Your task to perform on an android device: toggle data saver in the chrome app Image 0: 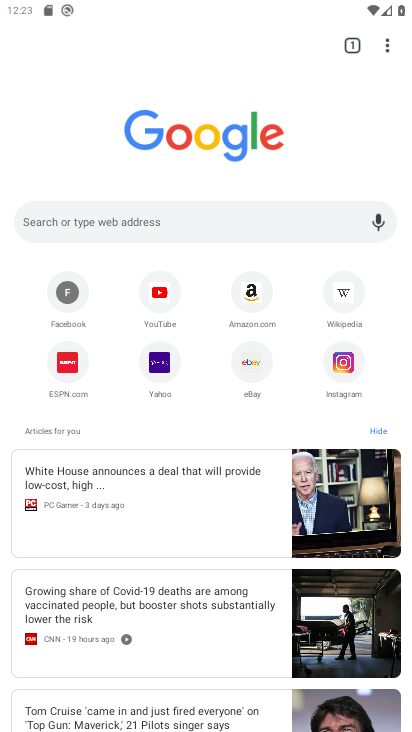
Step 0: press home button
Your task to perform on an android device: toggle data saver in the chrome app Image 1: 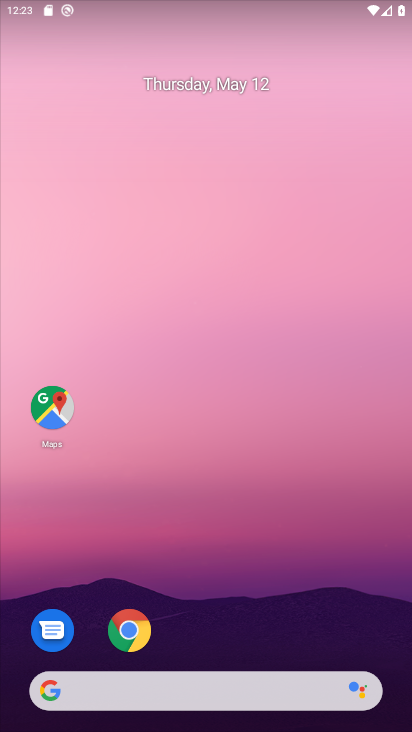
Step 1: click (146, 635)
Your task to perform on an android device: toggle data saver in the chrome app Image 2: 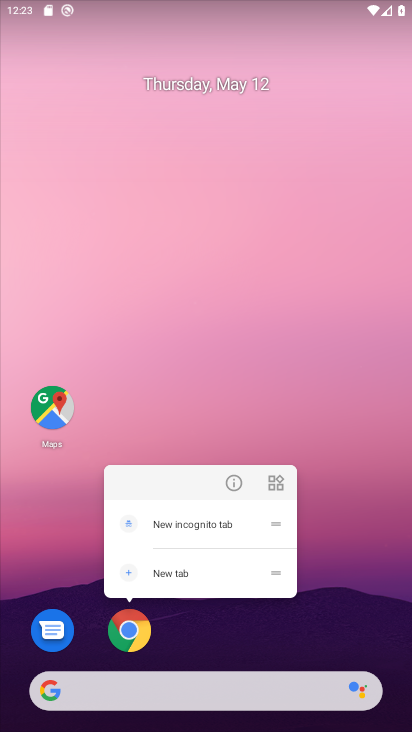
Step 2: click (125, 624)
Your task to perform on an android device: toggle data saver in the chrome app Image 3: 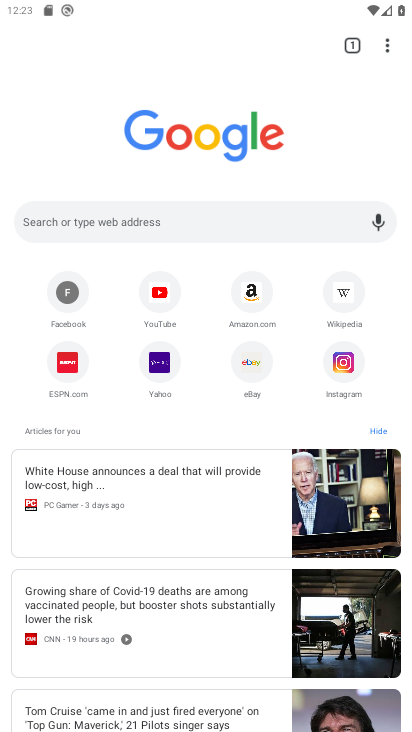
Step 3: drag from (390, 39) to (239, 376)
Your task to perform on an android device: toggle data saver in the chrome app Image 4: 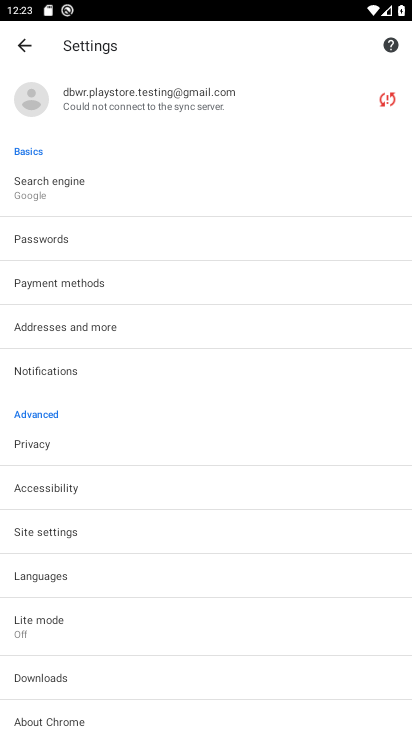
Step 4: click (39, 616)
Your task to perform on an android device: toggle data saver in the chrome app Image 5: 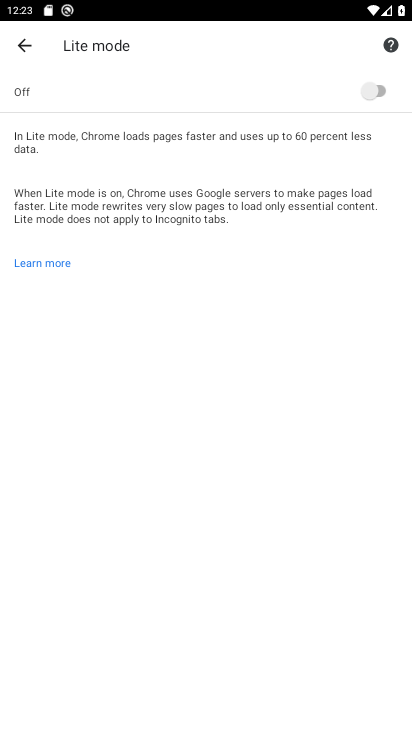
Step 5: click (379, 82)
Your task to perform on an android device: toggle data saver in the chrome app Image 6: 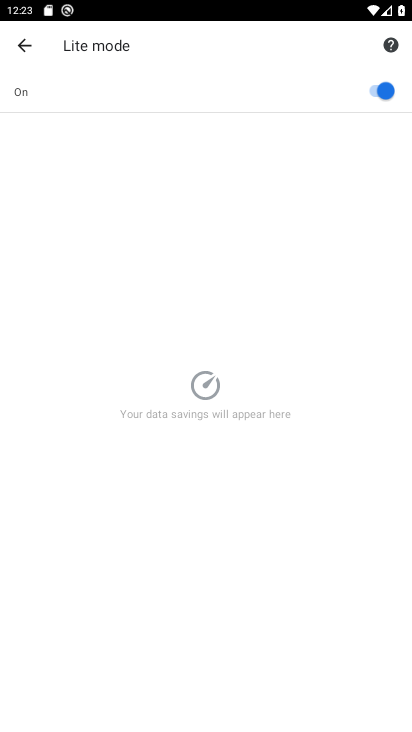
Step 6: task complete